Your task to perform on an android device: Go to Wikipedia Image 0: 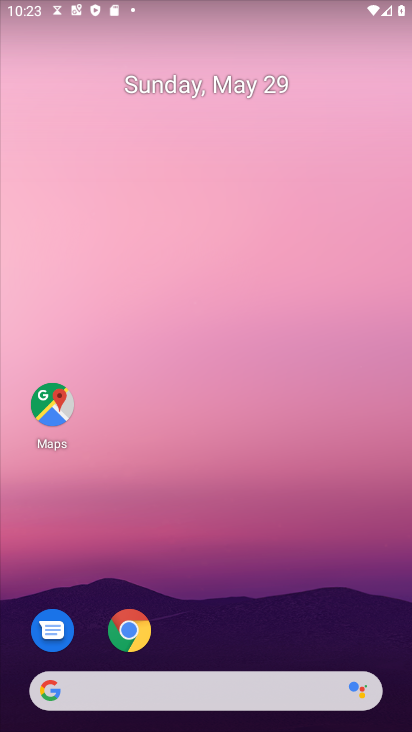
Step 0: click (133, 621)
Your task to perform on an android device: Go to Wikipedia Image 1: 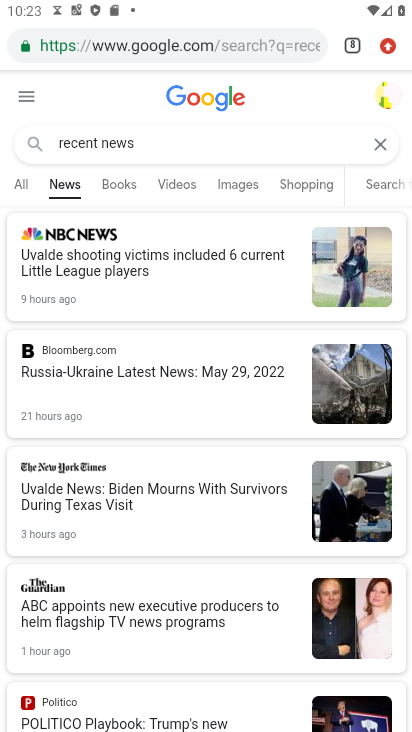
Step 1: click (351, 45)
Your task to perform on an android device: Go to Wikipedia Image 2: 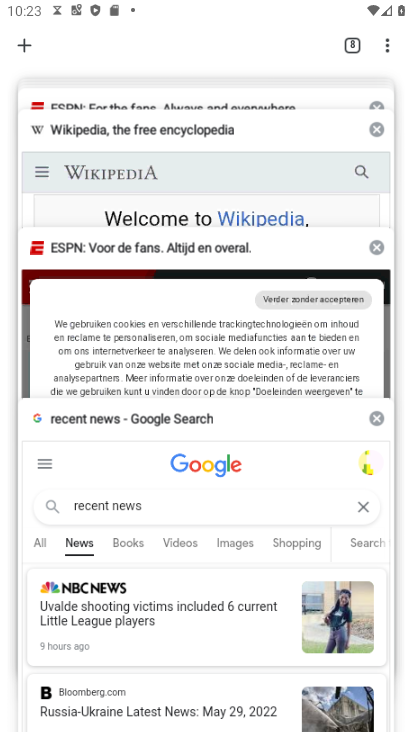
Step 2: click (17, 46)
Your task to perform on an android device: Go to Wikipedia Image 3: 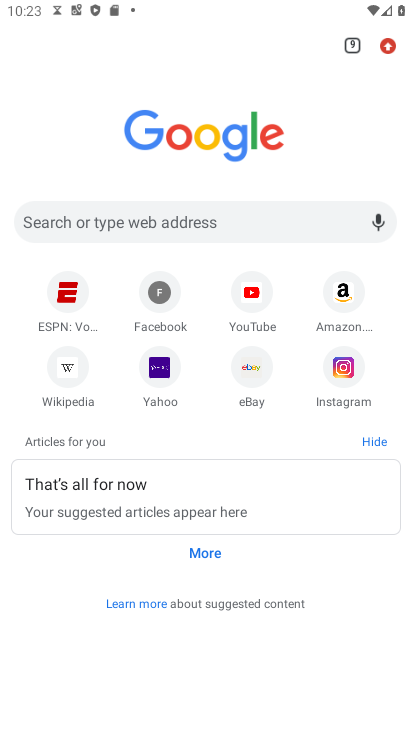
Step 3: click (69, 369)
Your task to perform on an android device: Go to Wikipedia Image 4: 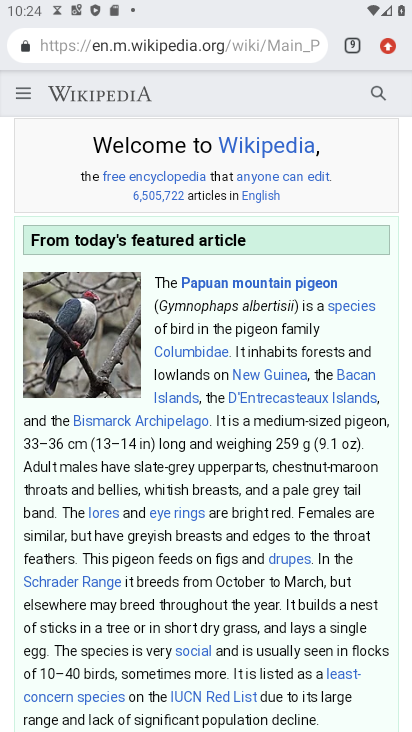
Step 4: task complete